Your task to perform on an android device: Toggle the flashlight Image 0: 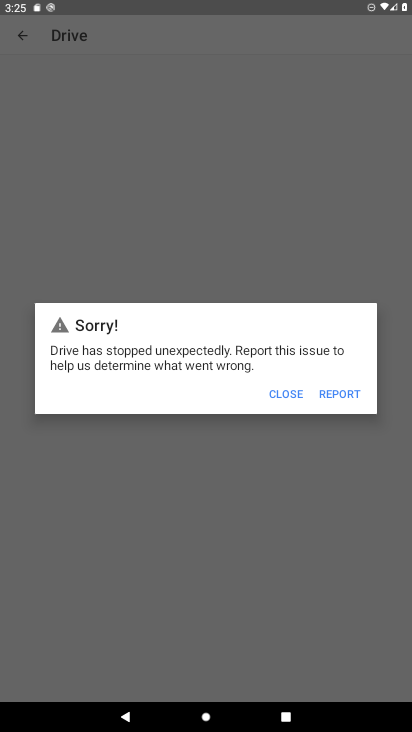
Step 0: press home button
Your task to perform on an android device: Toggle the flashlight Image 1: 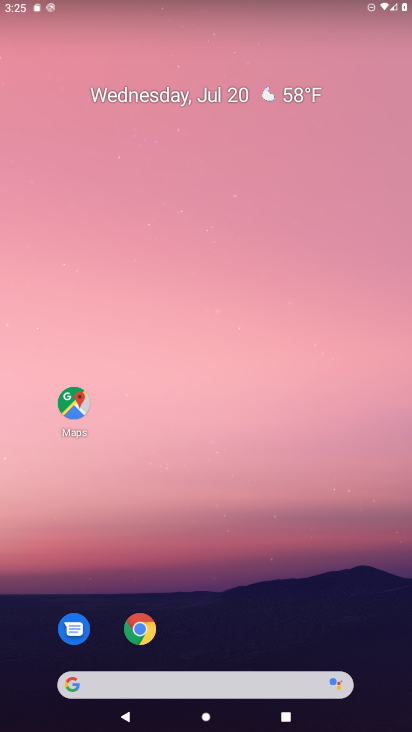
Step 1: task complete